Your task to perform on an android device: open wifi settings Image 0: 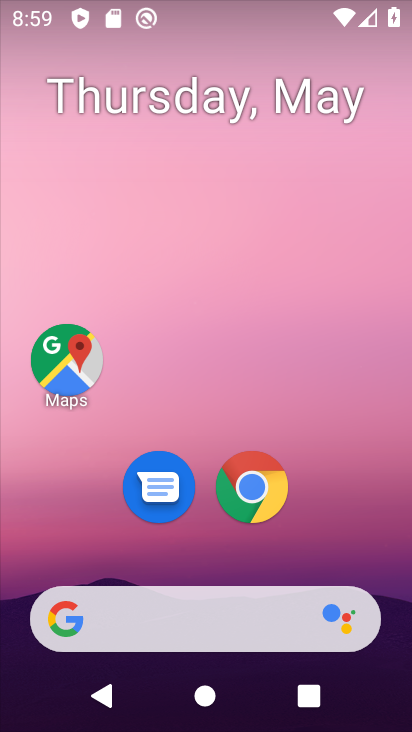
Step 0: drag from (91, 9) to (94, 384)
Your task to perform on an android device: open wifi settings Image 1: 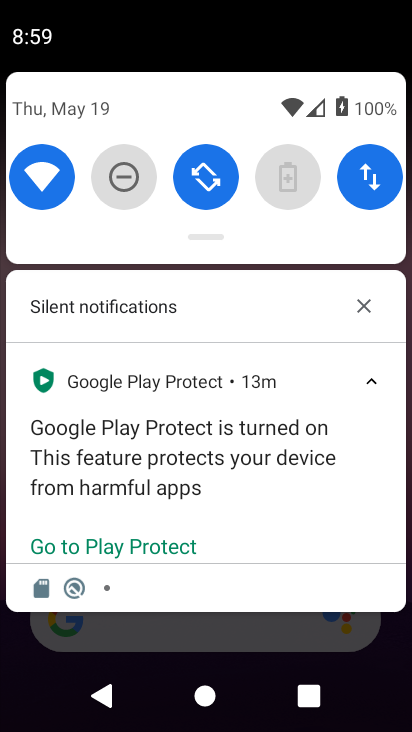
Step 1: click (51, 182)
Your task to perform on an android device: open wifi settings Image 2: 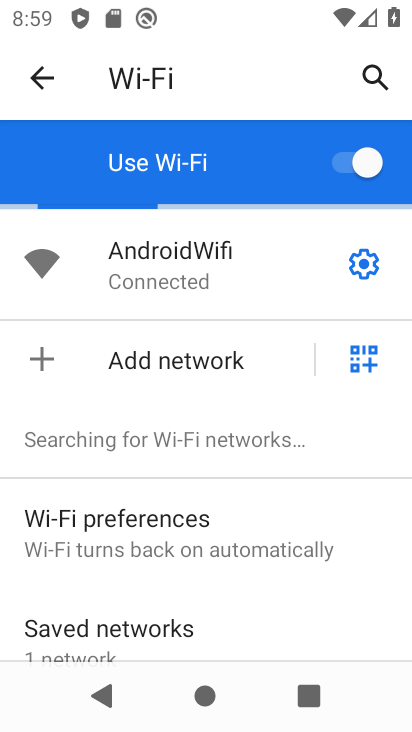
Step 2: task complete